Your task to perform on an android device: see creations saved in the google photos Image 0: 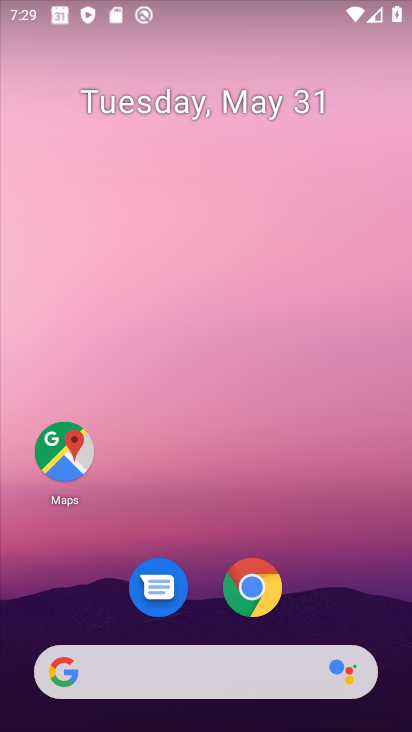
Step 0: click (209, 558)
Your task to perform on an android device: see creations saved in the google photos Image 1: 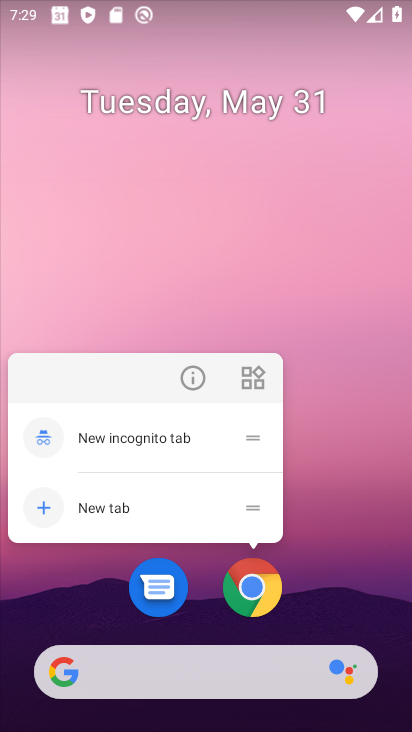
Step 1: click (340, 618)
Your task to perform on an android device: see creations saved in the google photos Image 2: 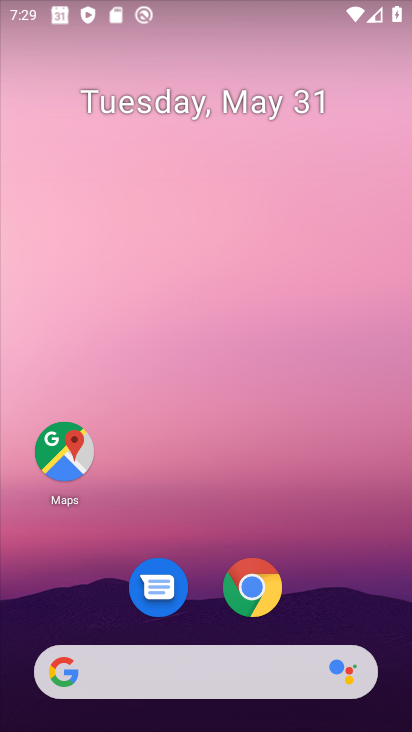
Step 2: drag from (199, 617) to (305, 4)
Your task to perform on an android device: see creations saved in the google photos Image 3: 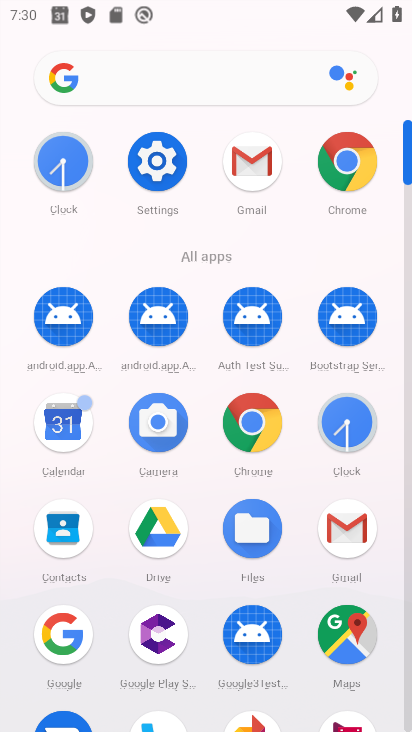
Step 3: click (258, 715)
Your task to perform on an android device: see creations saved in the google photos Image 4: 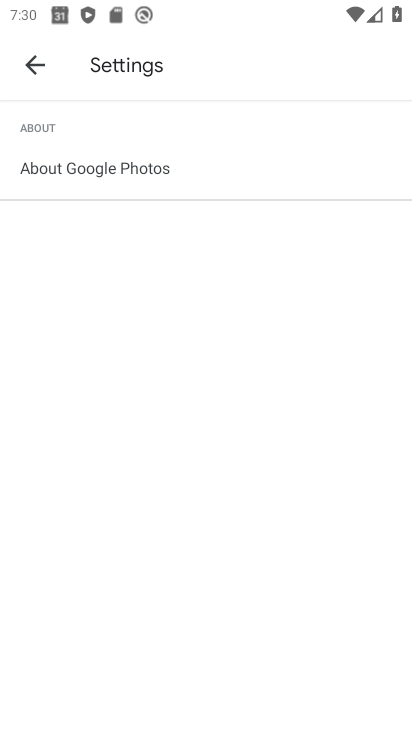
Step 4: click (32, 65)
Your task to perform on an android device: see creations saved in the google photos Image 5: 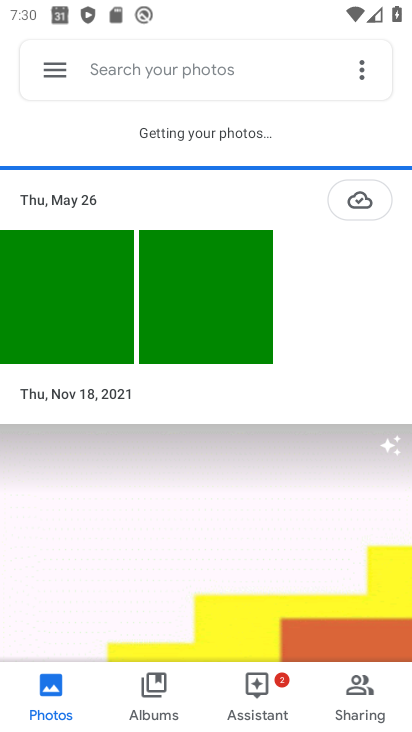
Step 5: click (169, 80)
Your task to perform on an android device: see creations saved in the google photos Image 6: 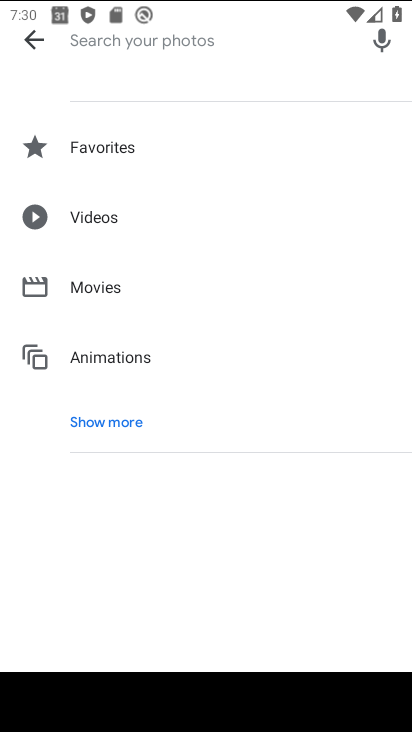
Step 6: click (127, 411)
Your task to perform on an android device: see creations saved in the google photos Image 7: 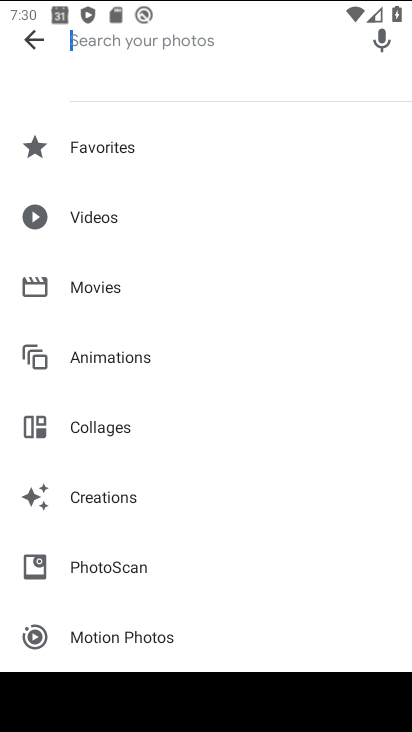
Step 7: click (111, 506)
Your task to perform on an android device: see creations saved in the google photos Image 8: 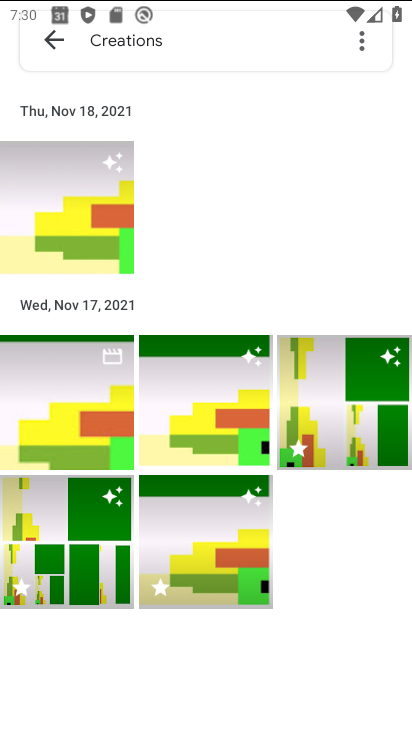
Step 8: task complete